Your task to perform on an android device: Go to CNN.com Image 0: 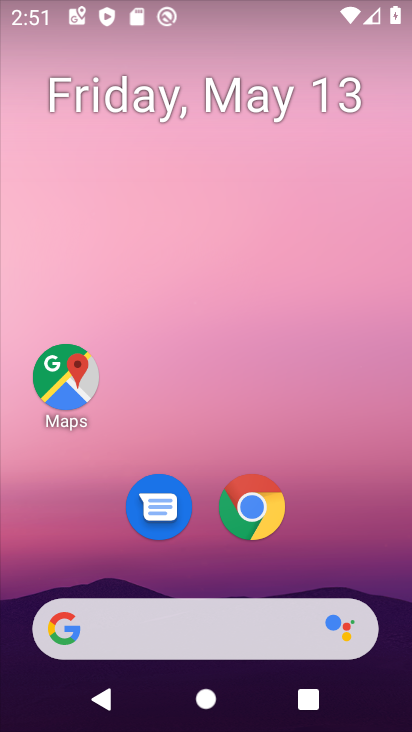
Step 0: click (262, 500)
Your task to perform on an android device: Go to CNN.com Image 1: 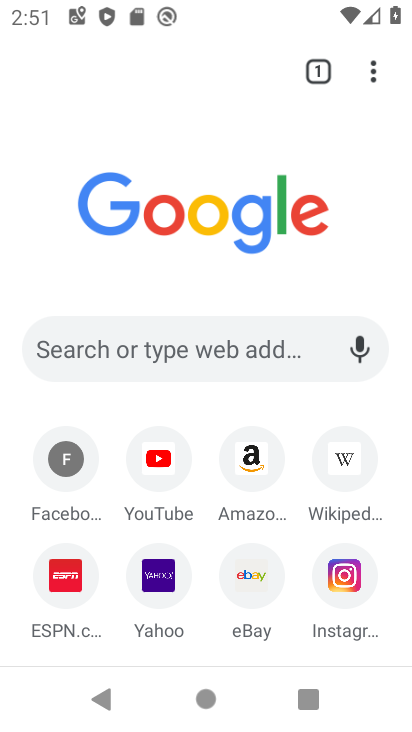
Step 1: click (150, 345)
Your task to perform on an android device: Go to CNN.com Image 2: 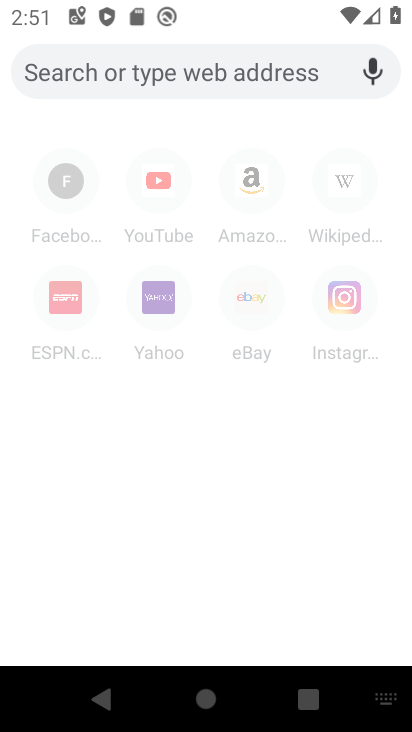
Step 2: type "cnn.com"
Your task to perform on an android device: Go to CNN.com Image 3: 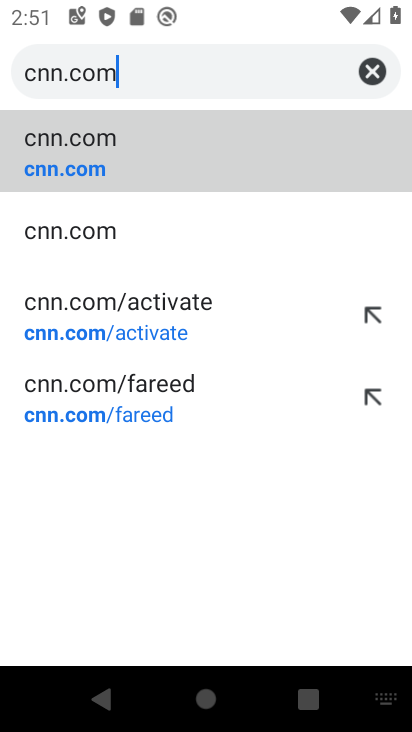
Step 3: click (165, 151)
Your task to perform on an android device: Go to CNN.com Image 4: 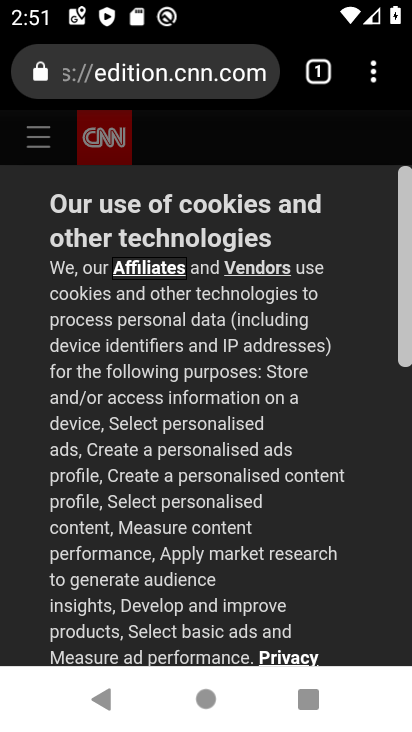
Step 4: task complete